Your task to perform on an android device: Open Google Maps Image 0: 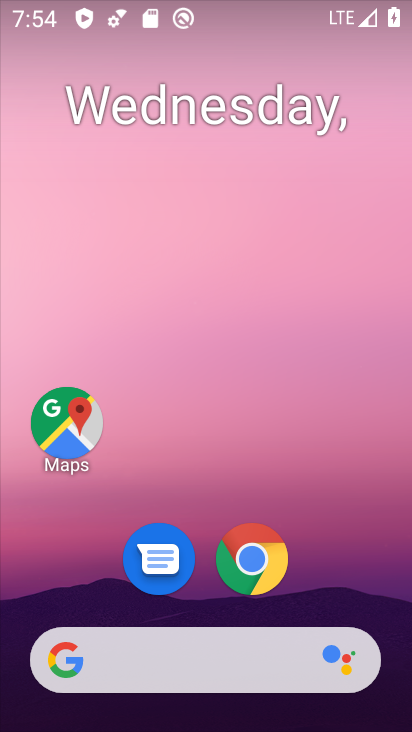
Step 0: click (78, 419)
Your task to perform on an android device: Open Google Maps Image 1: 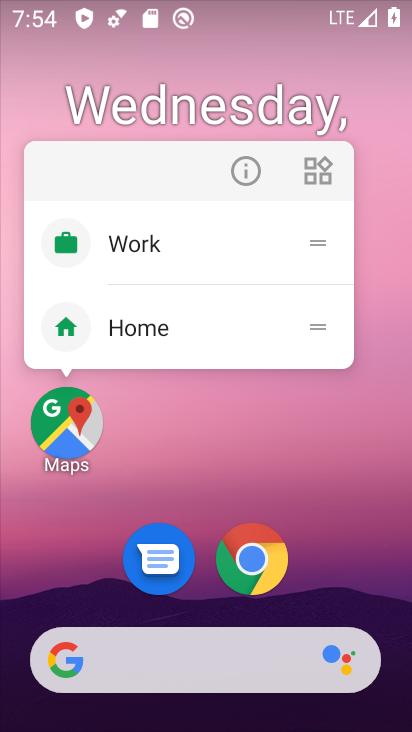
Step 1: click (78, 419)
Your task to perform on an android device: Open Google Maps Image 2: 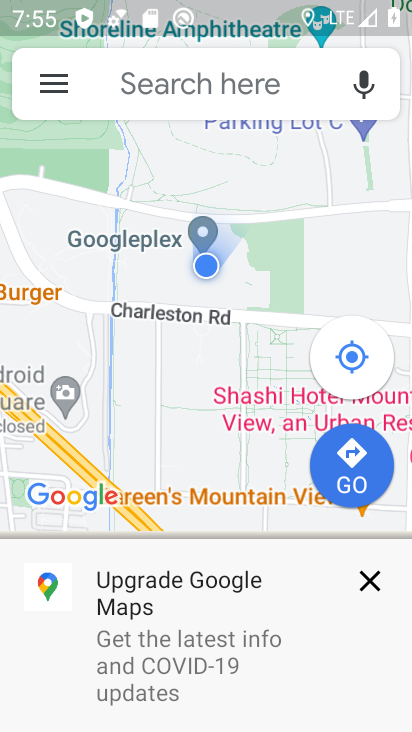
Step 2: task complete